Your task to perform on an android device: toggle data saver in the chrome app Image 0: 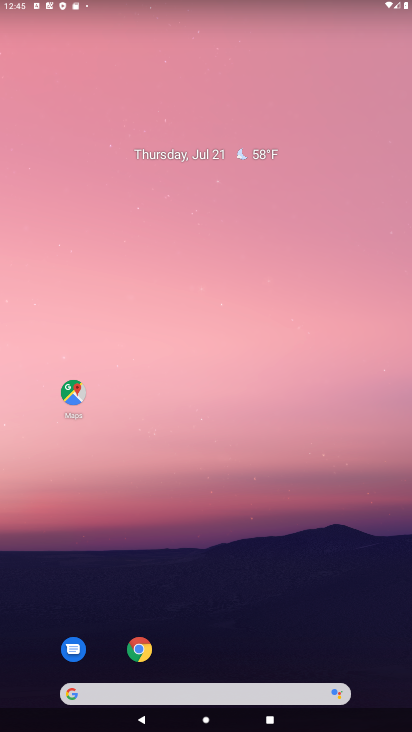
Step 0: click (138, 651)
Your task to perform on an android device: toggle data saver in the chrome app Image 1: 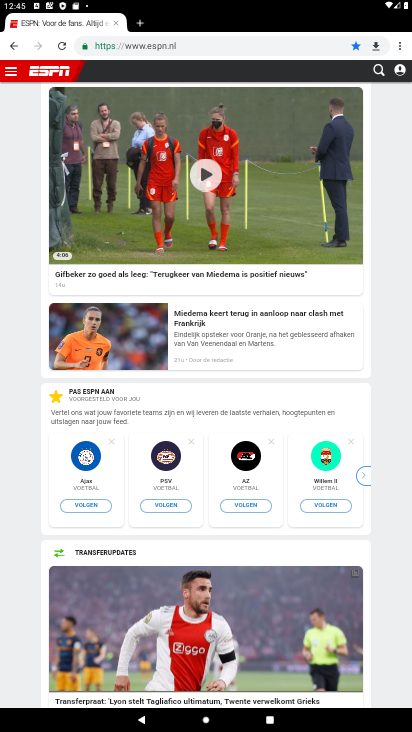
Step 1: click (396, 49)
Your task to perform on an android device: toggle data saver in the chrome app Image 2: 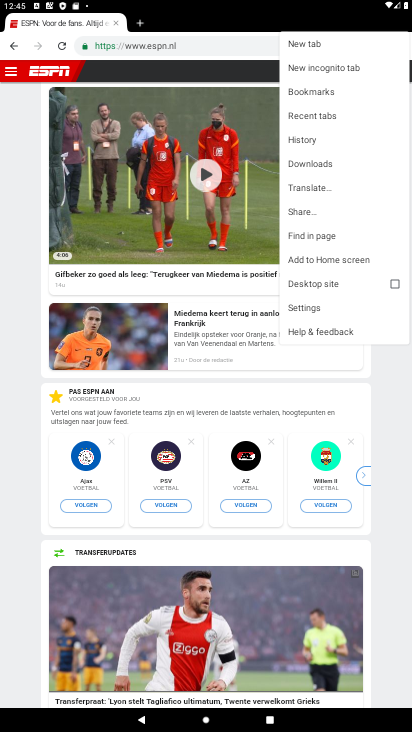
Step 2: click (306, 307)
Your task to perform on an android device: toggle data saver in the chrome app Image 3: 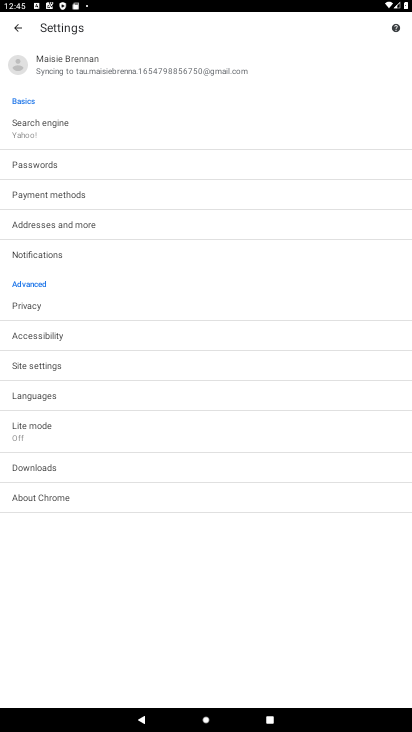
Step 3: click (13, 426)
Your task to perform on an android device: toggle data saver in the chrome app Image 4: 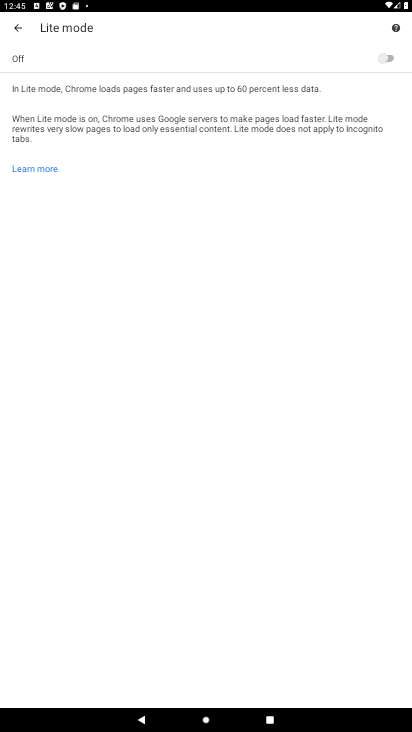
Step 4: click (274, 288)
Your task to perform on an android device: toggle data saver in the chrome app Image 5: 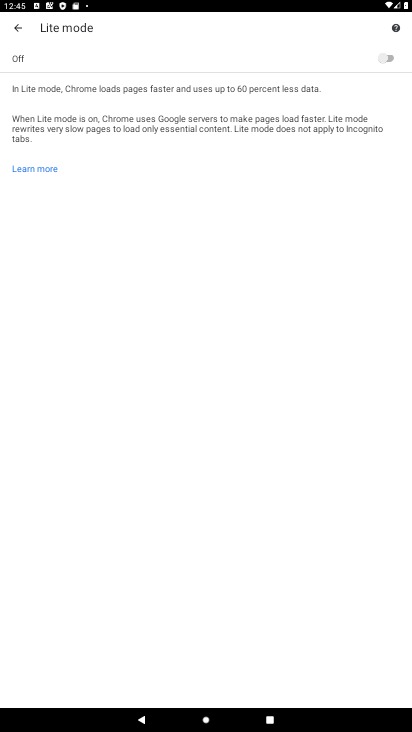
Step 5: click (392, 58)
Your task to perform on an android device: toggle data saver in the chrome app Image 6: 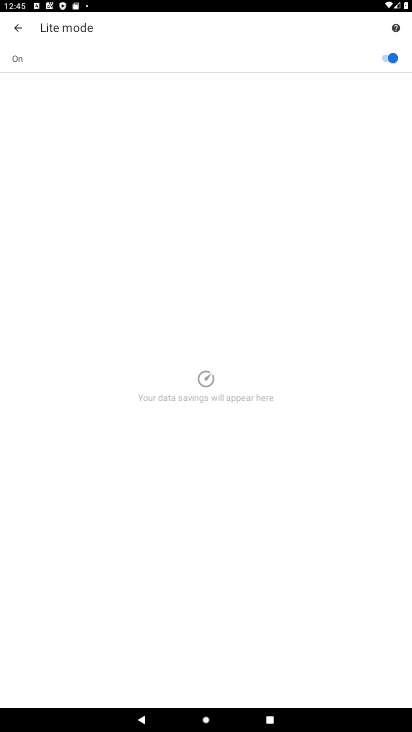
Step 6: task complete